Your task to perform on an android device: Open Chrome and go to the settings page Image 0: 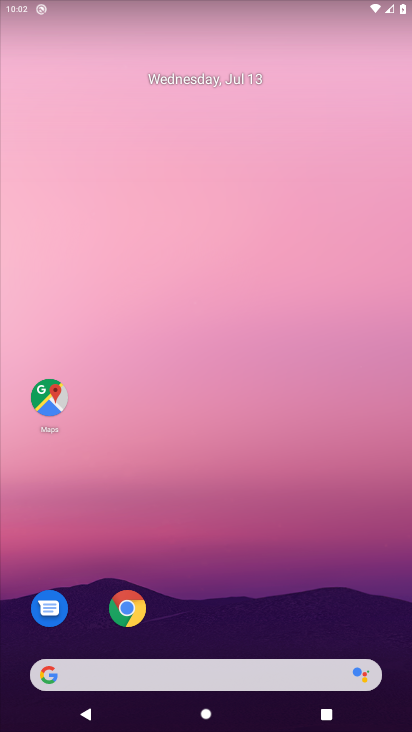
Step 0: click (109, 609)
Your task to perform on an android device: Open Chrome and go to the settings page Image 1: 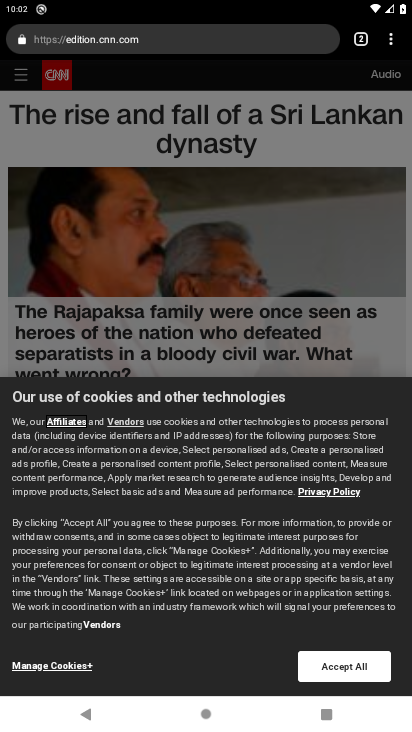
Step 1: click (388, 35)
Your task to perform on an android device: Open Chrome and go to the settings page Image 2: 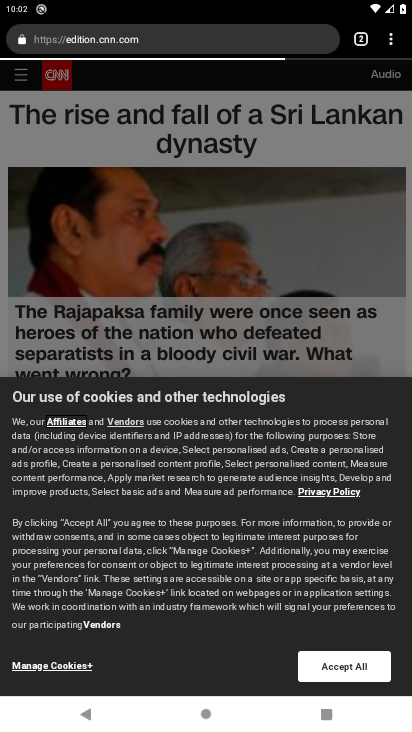
Step 2: click (393, 36)
Your task to perform on an android device: Open Chrome and go to the settings page Image 3: 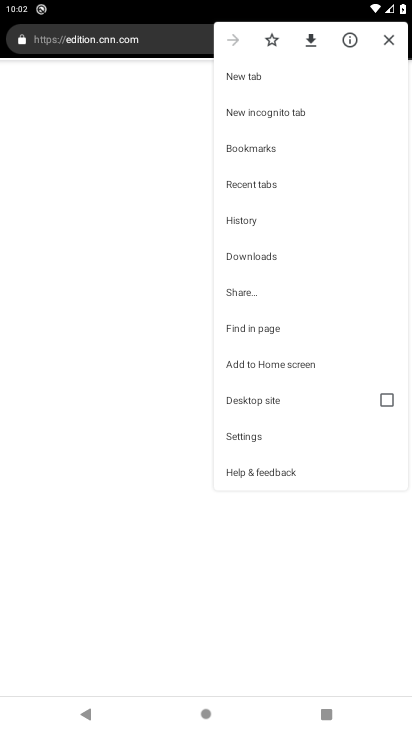
Step 3: click (259, 438)
Your task to perform on an android device: Open Chrome and go to the settings page Image 4: 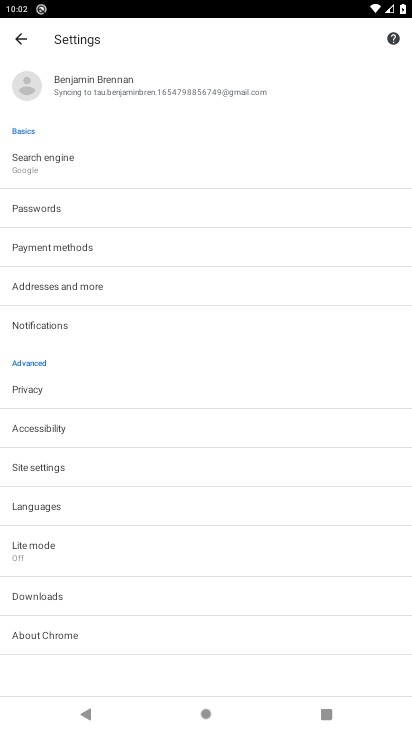
Step 4: task complete